Your task to perform on an android device: open app "Google Home" Image 0: 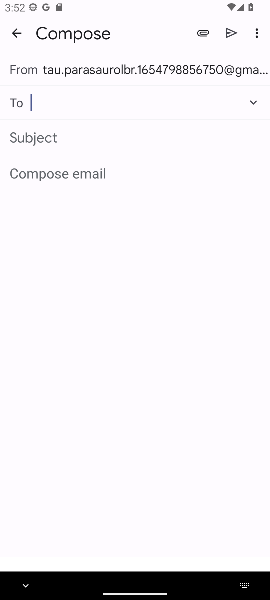
Step 0: press home button
Your task to perform on an android device: open app "Google Home" Image 1: 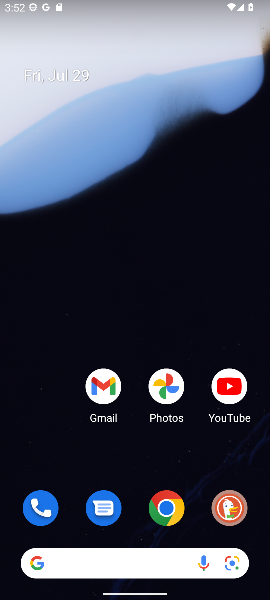
Step 1: drag from (249, 519) to (147, 43)
Your task to perform on an android device: open app "Google Home" Image 2: 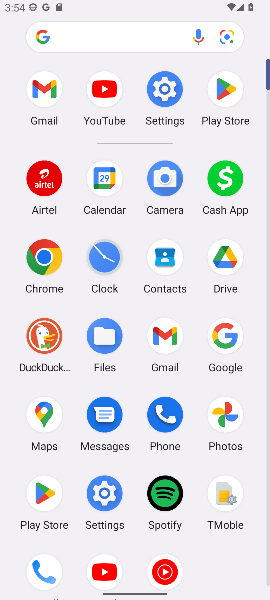
Step 2: click (227, 94)
Your task to perform on an android device: open app "Google Home" Image 3: 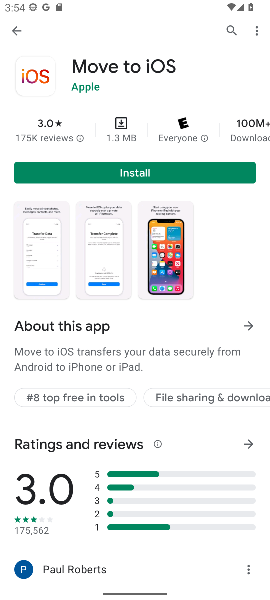
Step 3: press back button
Your task to perform on an android device: open app "Google Home" Image 4: 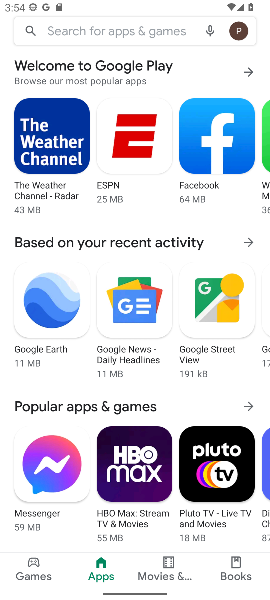
Step 4: click (110, 31)
Your task to perform on an android device: open app "Google Home" Image 5: 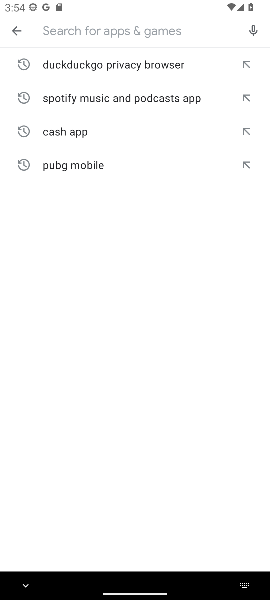
Step 5: type "Google Home"
Your task to perform on an android device: open app "Google Home" Image 6: 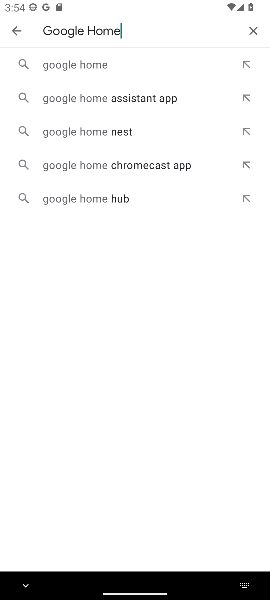
Step 6: click (84, 69)
Your task to perform on an android device: open app "Google Home" Image 7: 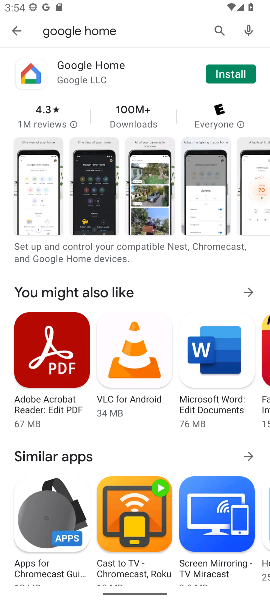
Step 7: task complete